Your task to perform on an android device: Open sound settings Image 0: 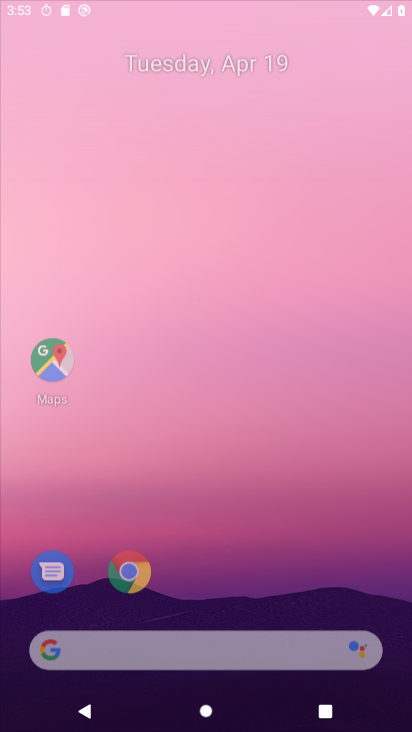
Step 0: click (48, 375)
Your task to perform on an android device: Open sound settings Image 1: 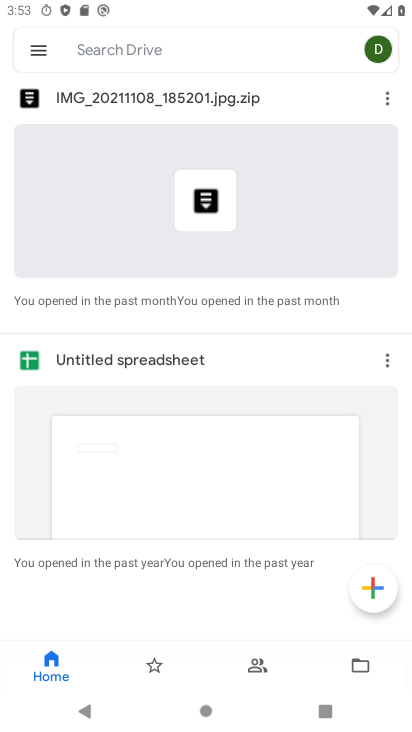
Step 1: press home button
Your task to perform on an android device: Open sound settings Image 2: 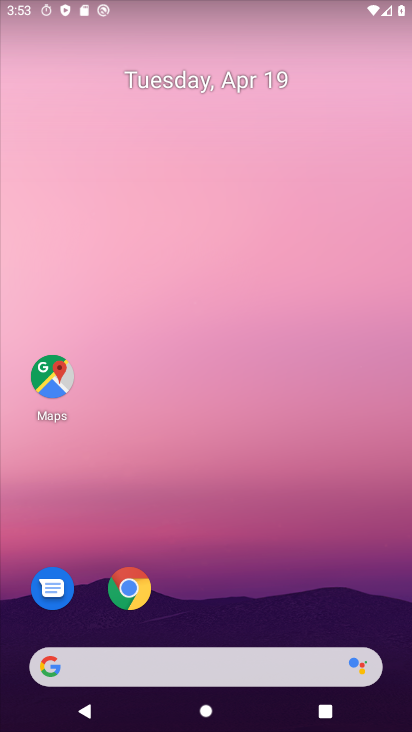
Step 2: drag from (198, 581) to (233, 118)
Your task to perform on an android device: Open sound settings Image 3: 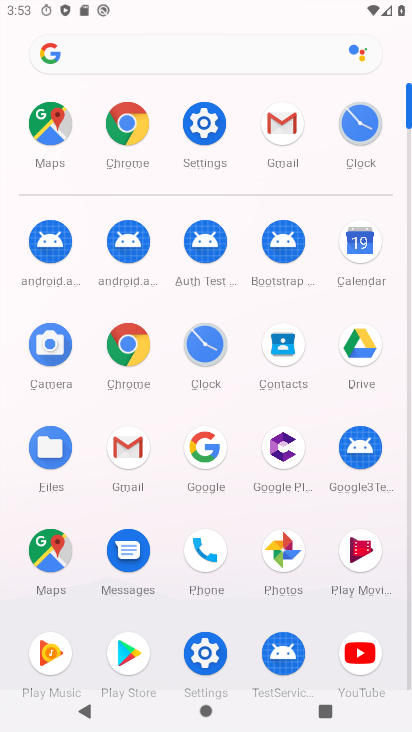
Step 3: click (204, 134)
Your task to perform on an android device: Open sound settings Image 4: 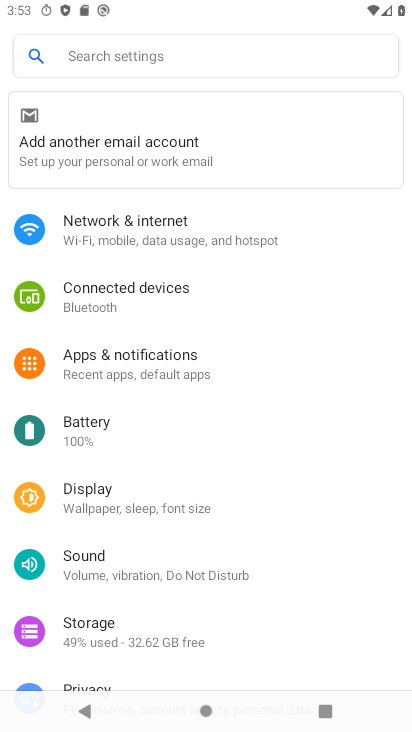
Step 4: click (123, 564)
Your task to perform on an android device: Open sound settings Image 5: 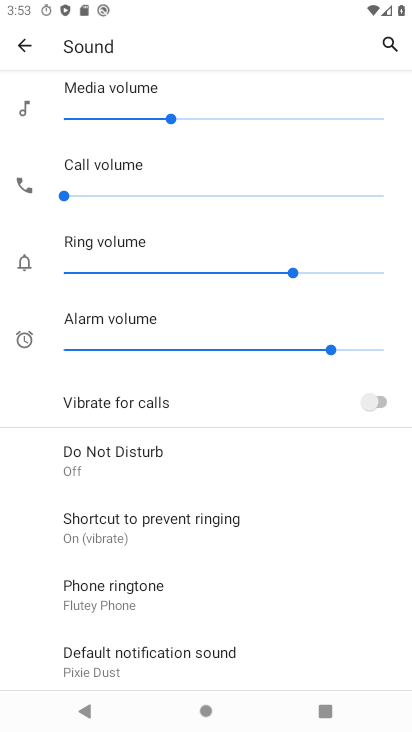
Step 5: task complete